Your task to perform on an android device: Open the phone app and click the voicemail tab. Image 0: 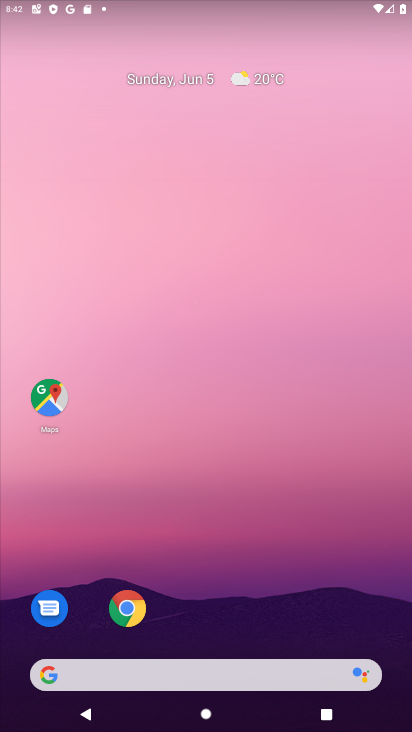
Step 0: drag from (43, 566) to (300, 122)
Your task to perform on an android device: Open the phone app and click the voicemail tab. Image 1: 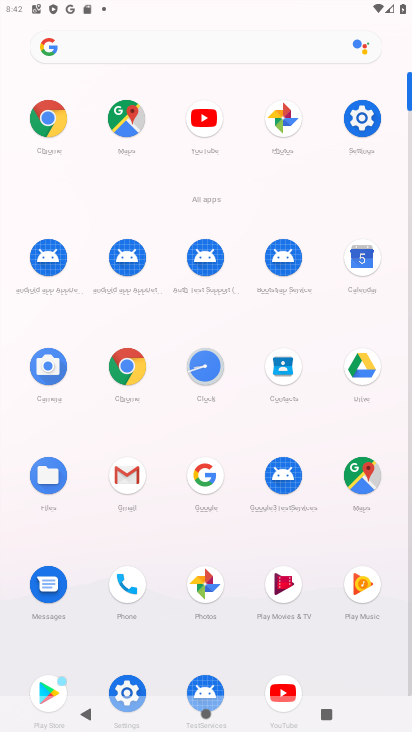
Step 1: click (132, 593)
Your task to perform on an android device: Open the phone app and click the voicemail tab. Image 2: 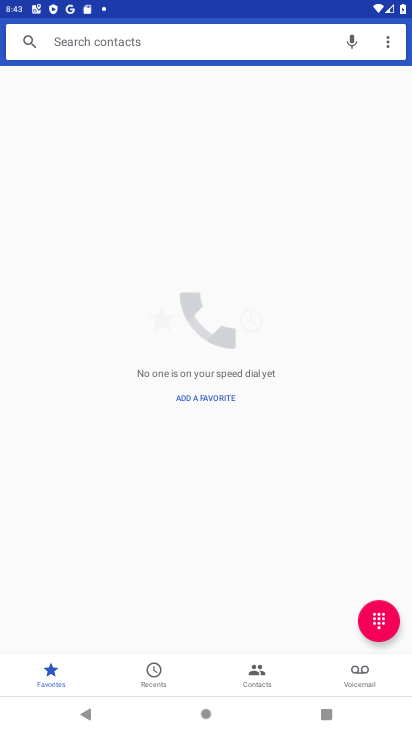
Step 2: click (354, 675)
Your task to perform on an android device: Open the phone app and click the voicemail tab. Image 3: 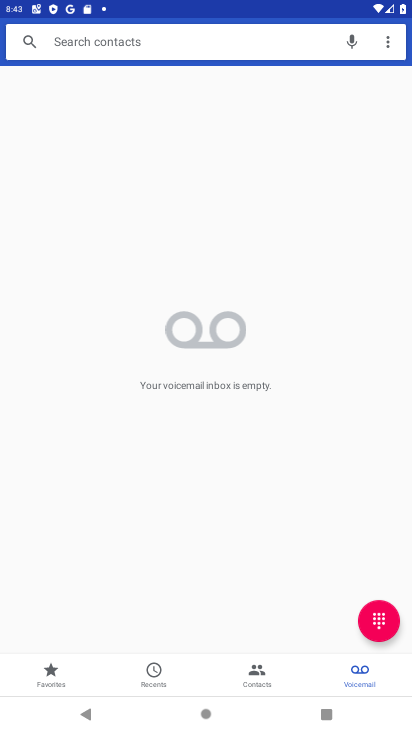
Step 3: task complete